Your task to perform on an android device: Go to Google maps Image 0: 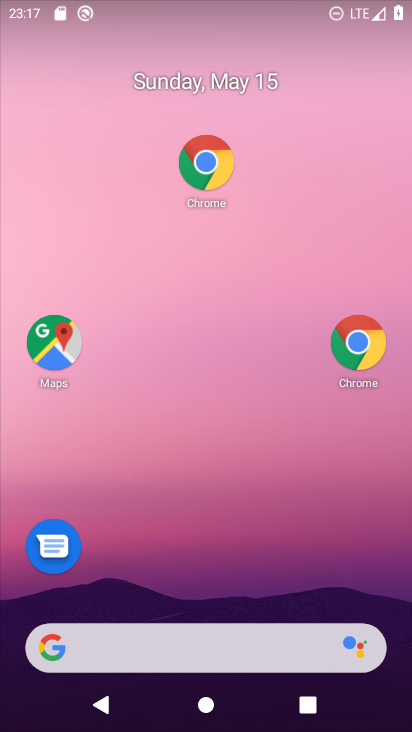
Step 0: drag from (190, 542) to (230, 267)
Your task to perform on an android device: Go to Google maps Image 1: 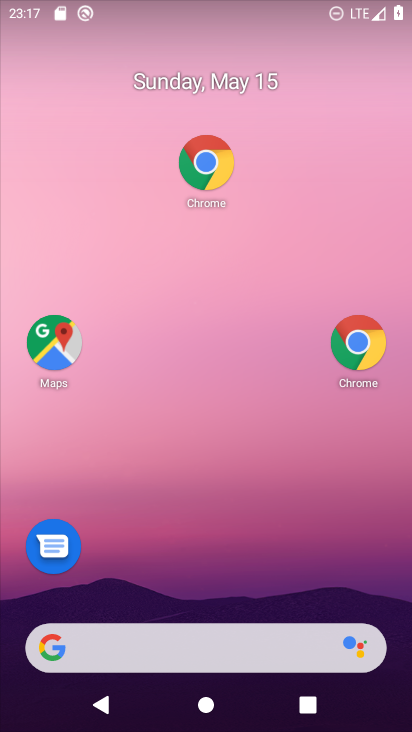
Step 1: drag from (221, 462) to (271, 216)
Your task to perform on an android device: Go to Google maps Image 2: 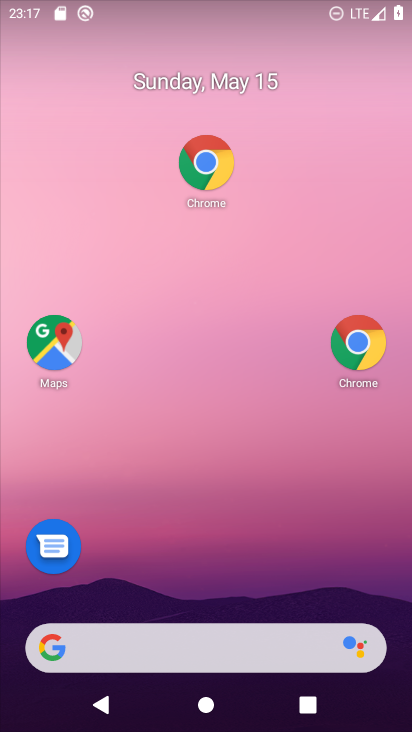
Step 2: drag from (203, 541) to (256, 135)
Your task to perform on an android device: Go to Google maps Image 3: 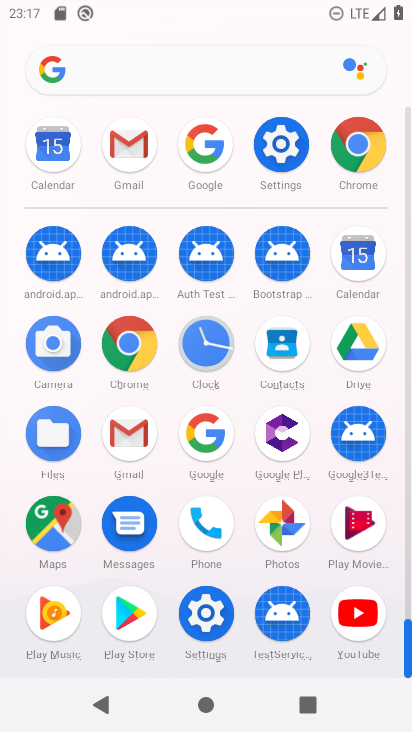
Step 3: click (195, 133)
Your task to perform on an android device: Go to Google maps Image 4: 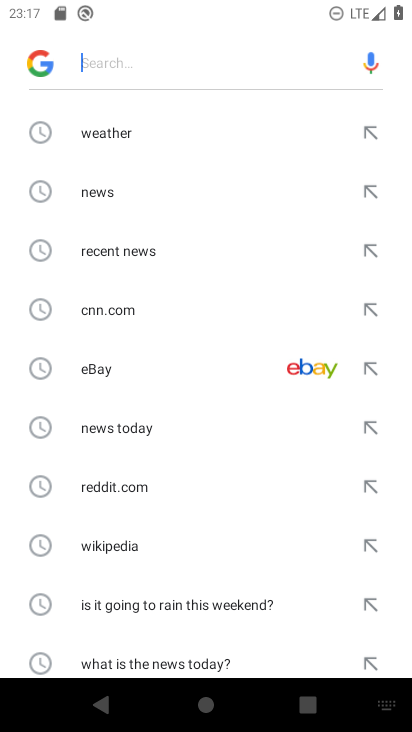
Step 4: task complete